Your task to perform on an android device: move an email to a new category in the gmail app Image 0: 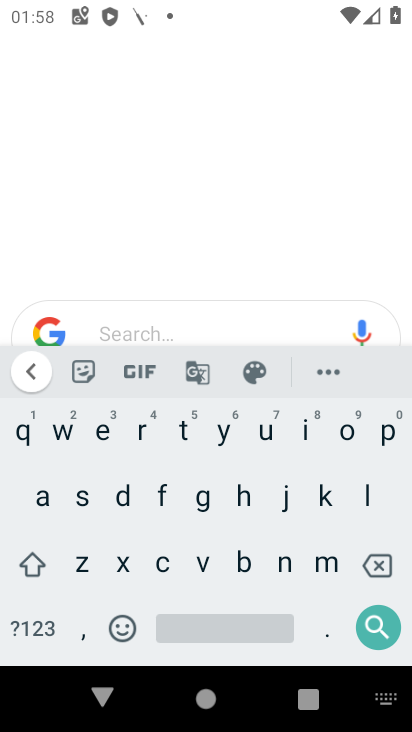
Step 0: press home button
Your task to perform on an android device: move an email to a new category in the gmail app Image 1: 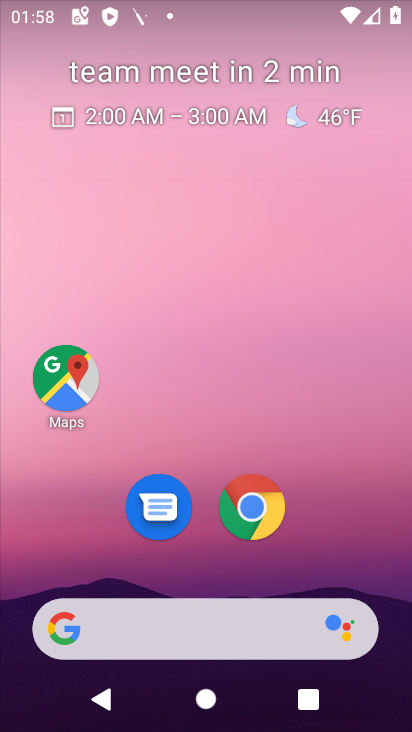
Step 1: drag from (241, 654) to (336, 184)
Your task to perform on an android device: move an email to a new category in the gmail app Image 2: 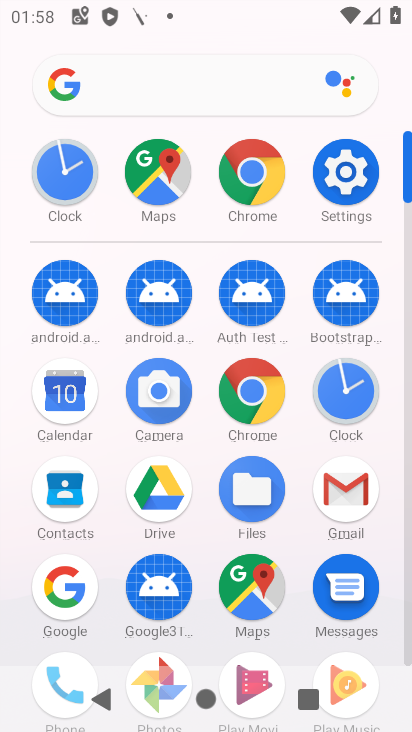
Step 2: click (349, 498)
Your task to perform on an android device: move an email to a new category in the gmail app Image 3: 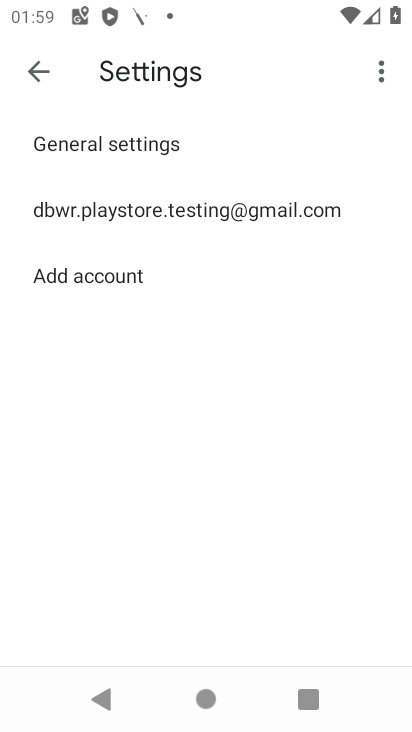
Step 3: click (142, 207)
Your task to perform on an android device: move an email to a new category in the gmail app Image 4: 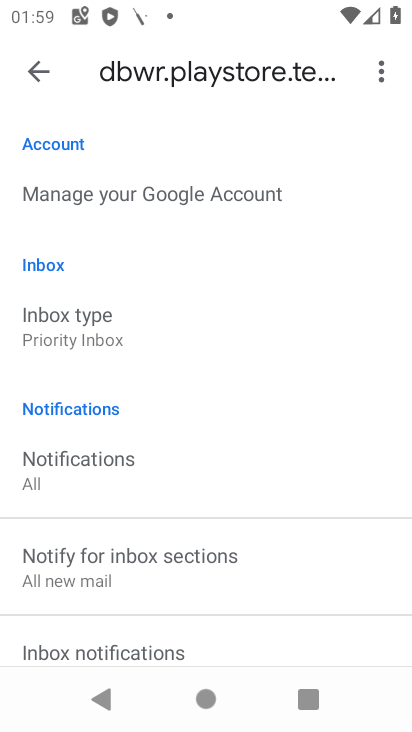
Step 4: click (59, 323)
Your task to perform on an android device: move an email to a new category in the gmail app Image 5: 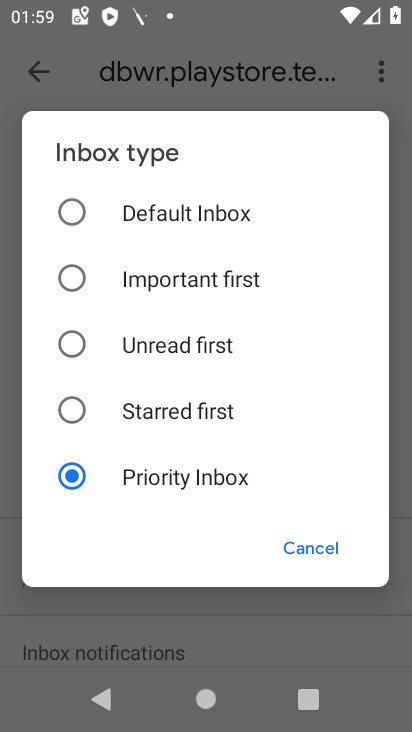
Step 5: click (188, 214)
Your task to perform on an android device: move an email to a new category in the gmail app Image 6: 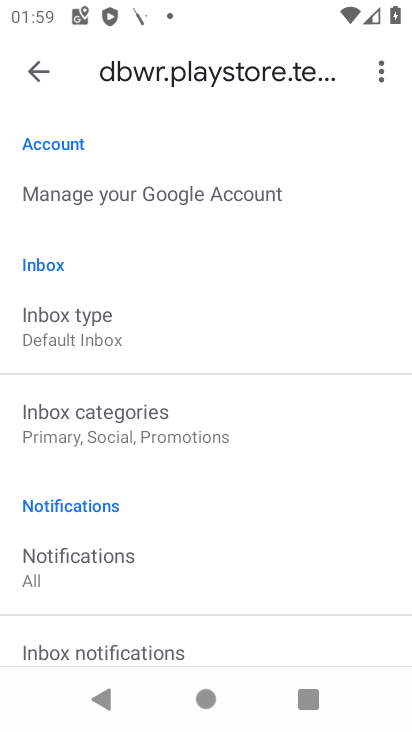
Step 6: click (106, 418)
Your task to perform on an android device: move an email to a new category in the gmail app Image 7: 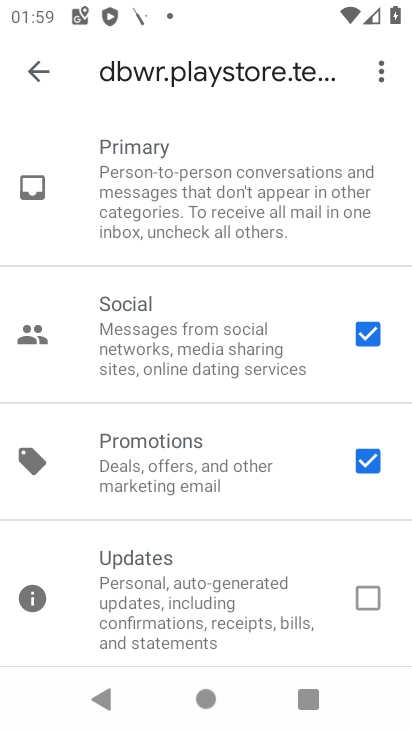
Step 7: click (359, 608)
Your task to perform on an android device: move an email to a new category in the gmail app Image 8: 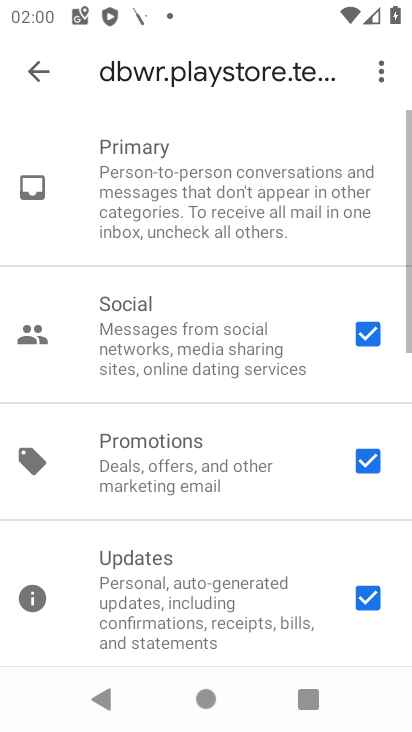
Step 8: task complete